Your task to perform on an android device: Show me the alarms in the clock app Image 0: 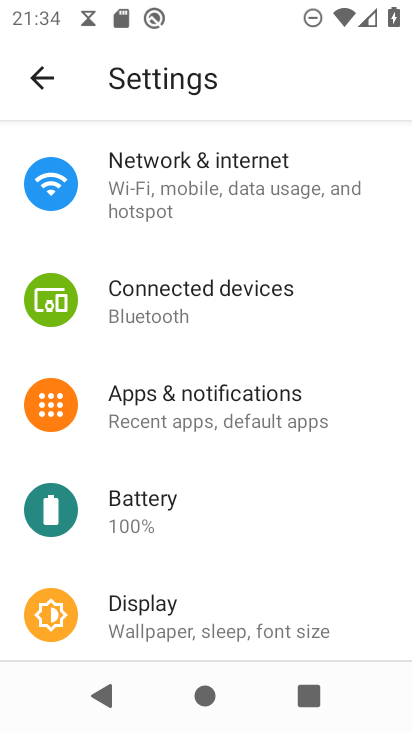
Step 0: press home button
Your task to perform on an android device: Show me the alarms in the clock app Image 1: 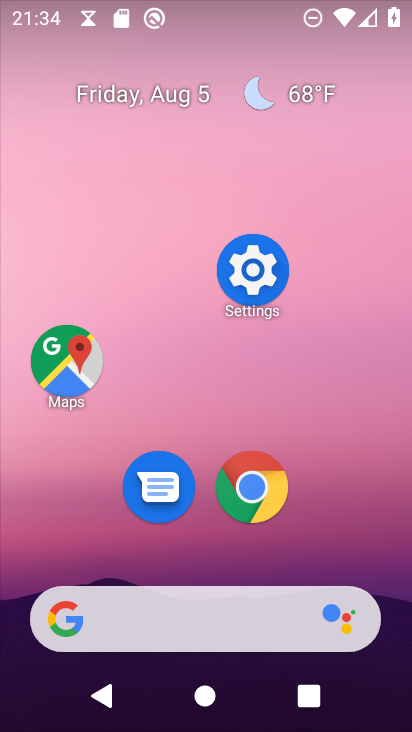
Step 1: drag from (201, 618) to (302, 145)
Your task to perform on an android device: Show me the alarms in the clock app Image 2: 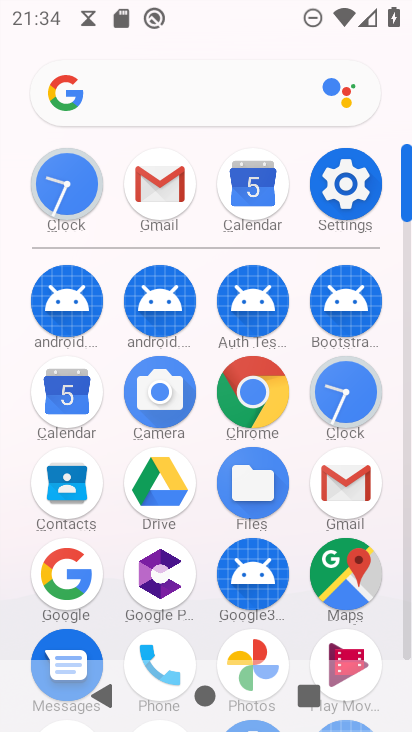
Step 2: click (81, 186)
Your task to perform on an android device: Show me the alarms in the clock app Image 3: 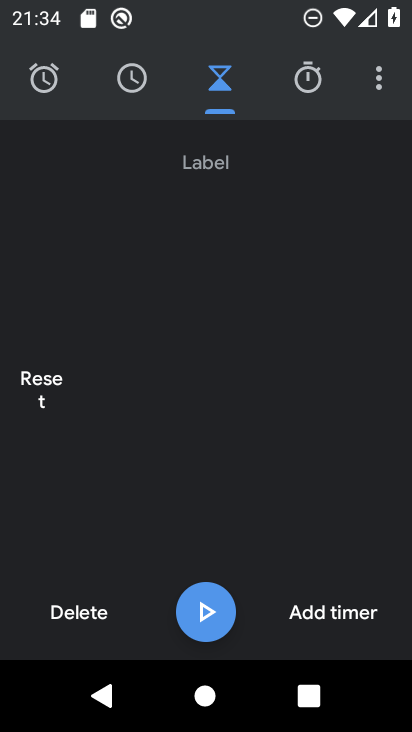
Step 3: click (43, 82)
Your task to perform on an android device: Show me the alarms in the clock app Image 4: 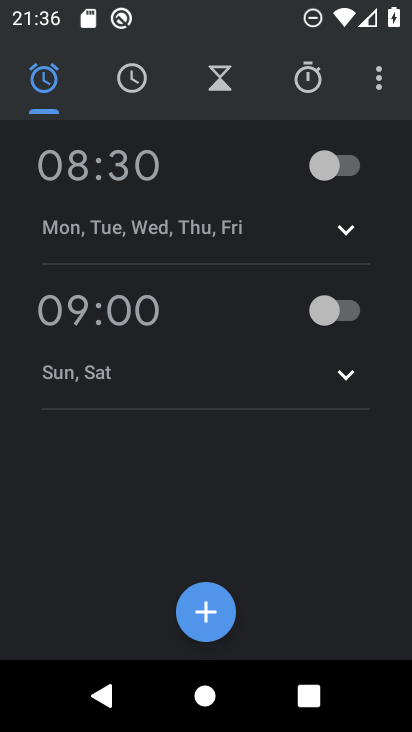
Step 4: task complete